Your task to perform on an android device: choose inbox layout in the gmail app Image 0: 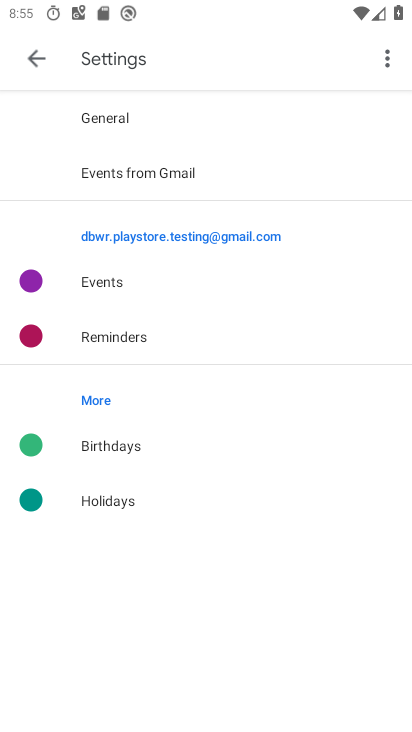
Step 0: press home button
Your task to perform on an android device: choose inbox layout in the gmail app Image 1: 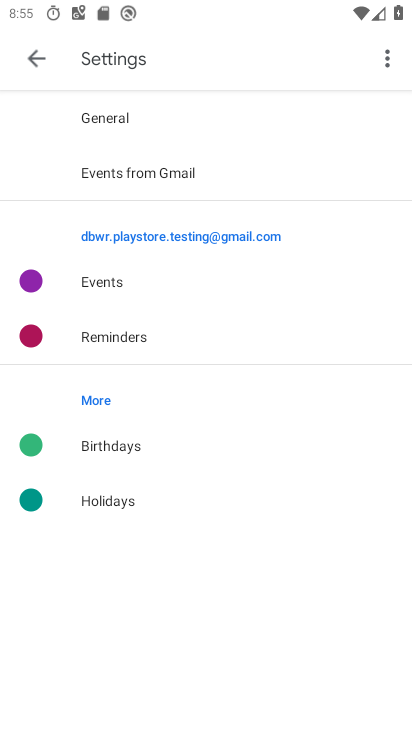
Step 1: press home button
Your task to perform on an android device: choose inbox layout in the gmail app Image 2: 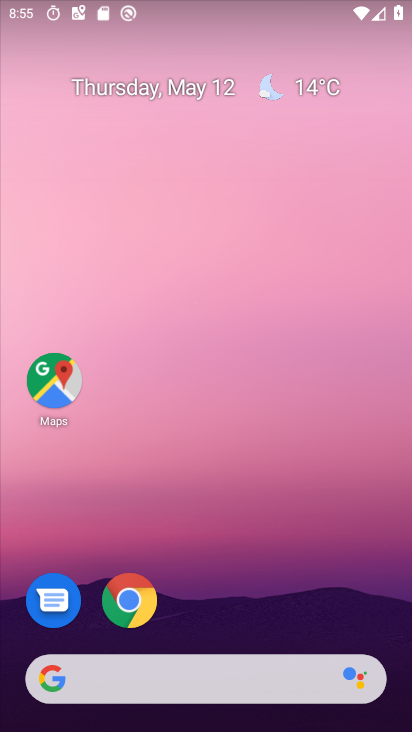
Step 2: press home button
Your task to perform on an android device: choose inbox layout in the gmail app Image 3: 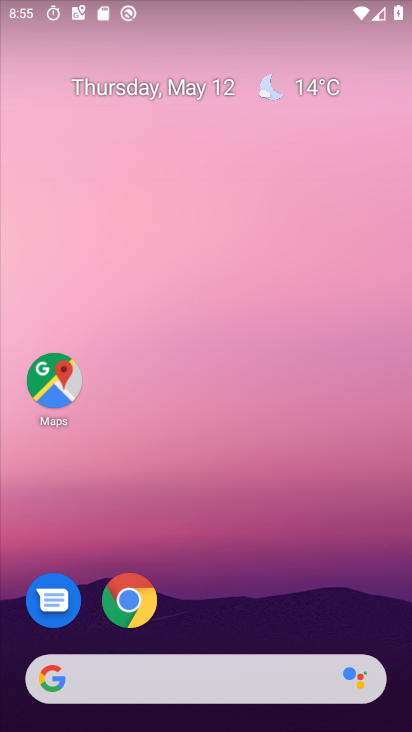
Step 3: press home button
Your task to perform on an android device: choose inbox layout in the gmail app Image 4: 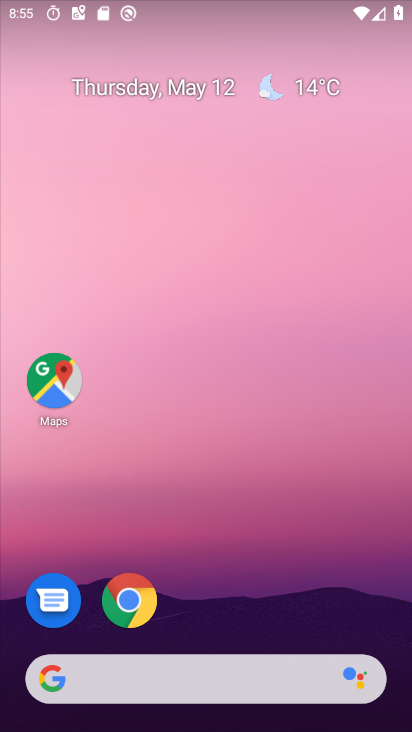
Step 4: drag from (370, 626) to (76, 7)
Your task to perform on an android device: choose inbox layout in the gmail app Image 5: 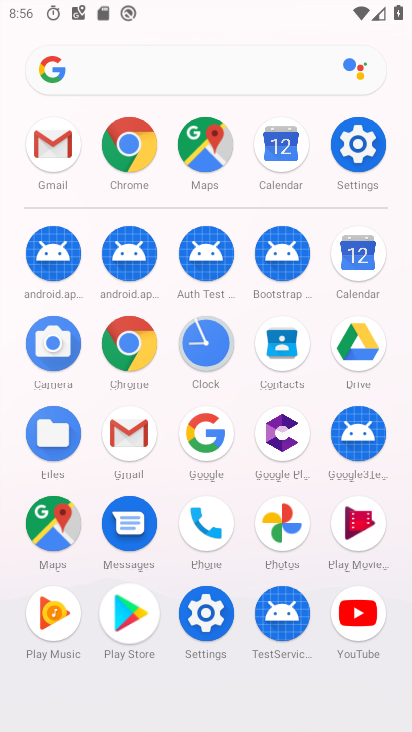
Step 5: click (119, 413)
Your task to perform on an android device: choose inbox layout in the gmail app Image 6: 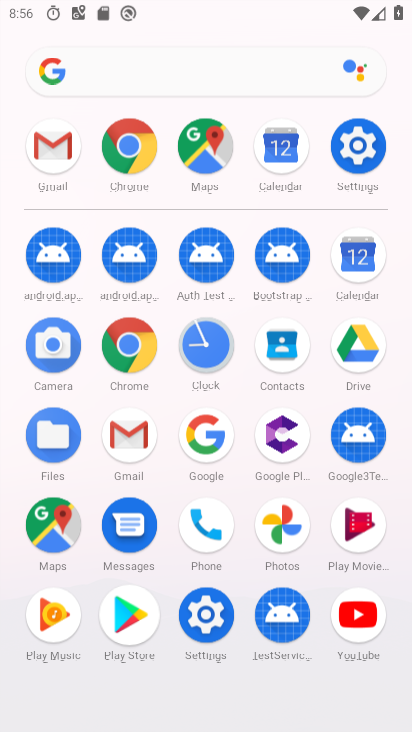
Step 6: click (116, 421)
Your task to perform on an android device: choose inbox layout in the gmail app Image 7: 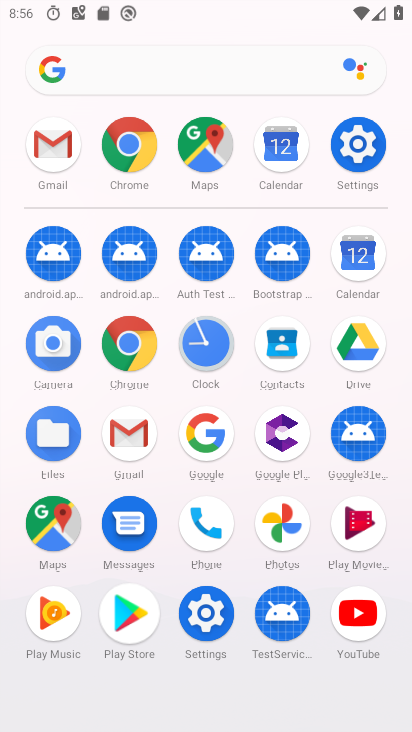
Step 7: click (116, 421)
Your task to perform on an android device: choose inbox layout in the gmail app Image 8: 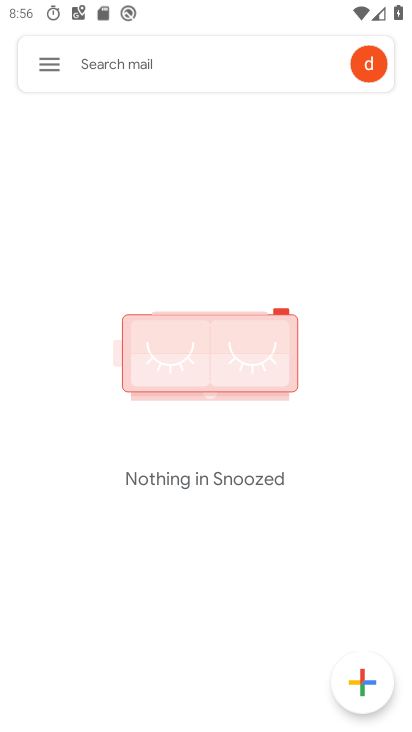
Step 8: click (44, 61)
Your task to perform on an android device: choose inbox layout in the gmail app Image 9: 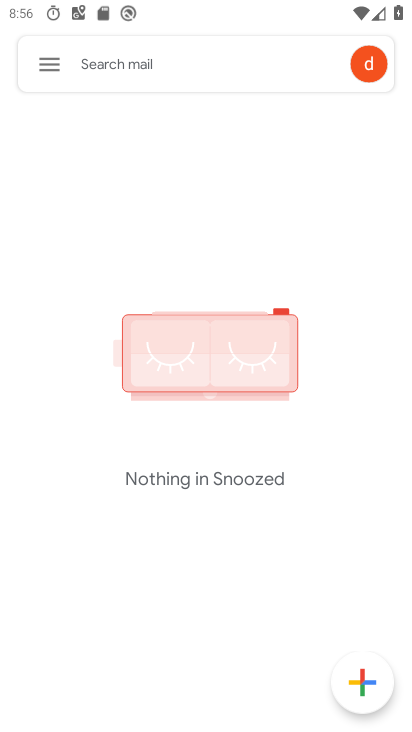
Step 9: click (46, 59)
Your task to perform on an android device: choose inbox layout in the gmail app Image 10: 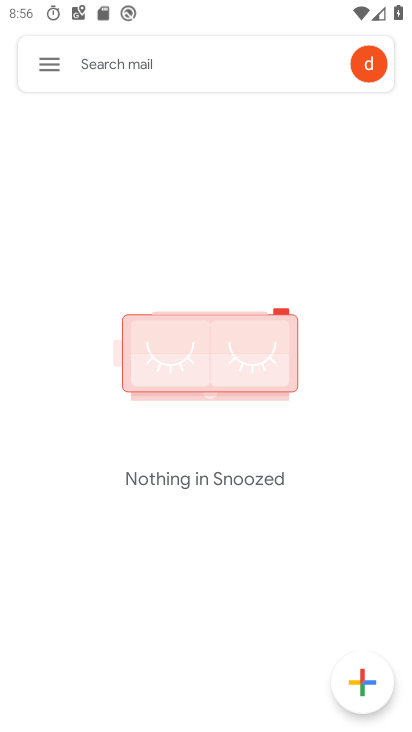
Step 10: click (52, 65)
Your task to perform on an android device: choose inbox layout in the gmail app Image 11: 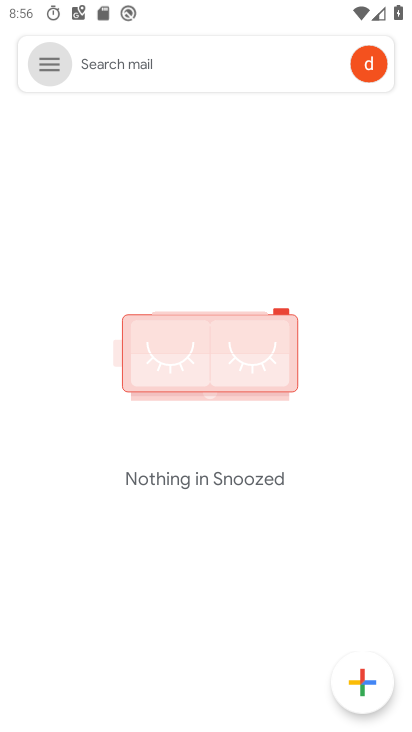
Step 11: click (53, 66)
Your task to perform on an android device: choose inbox layout in the gmail app Image 12: 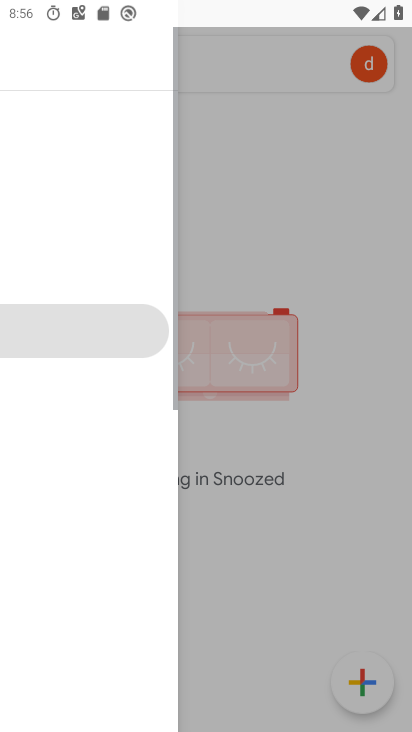
Step 12: click (53, 65)
Your task to perform on an android device: choose inbox layout in the gmail app Image 13: 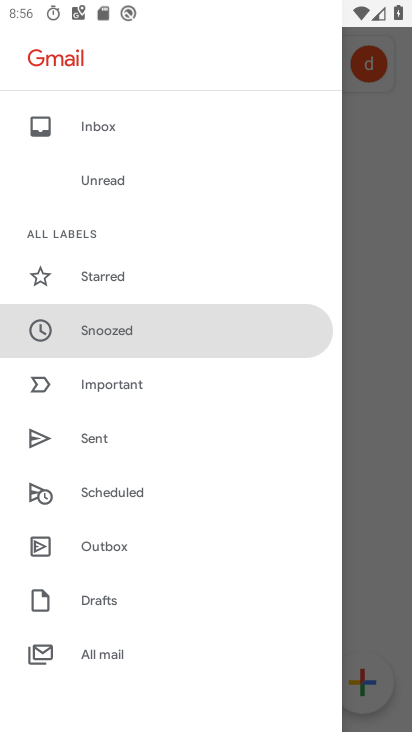
Step 13: drag from (130, 578) to (151, 0)
Your task to perform on an android device: choose inbox layout in the gmail app Image 14: 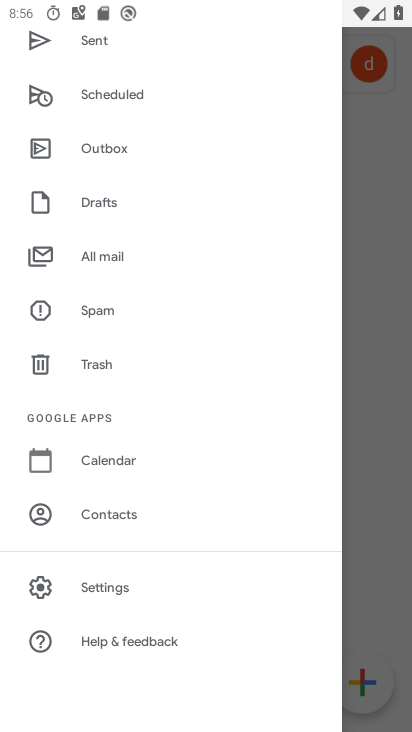
Step 14: click (113, 257)
Your task to perform on an android device: choose inbox layout in the gmail app Image 15: 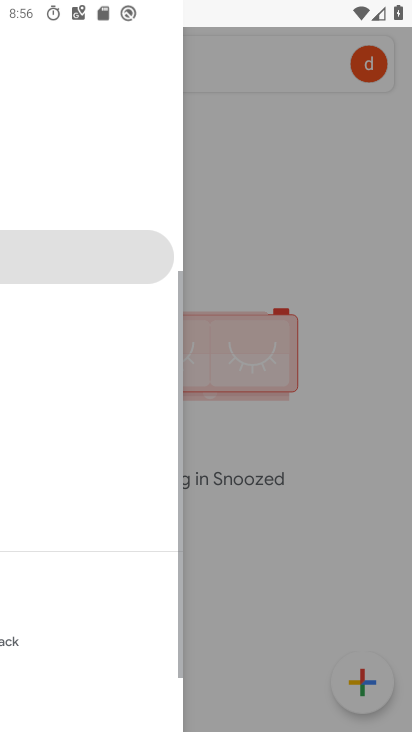
Step 15: click (113, 257)
Your task to perform on an android device: choose inbox layout in the gmail app Image 16: 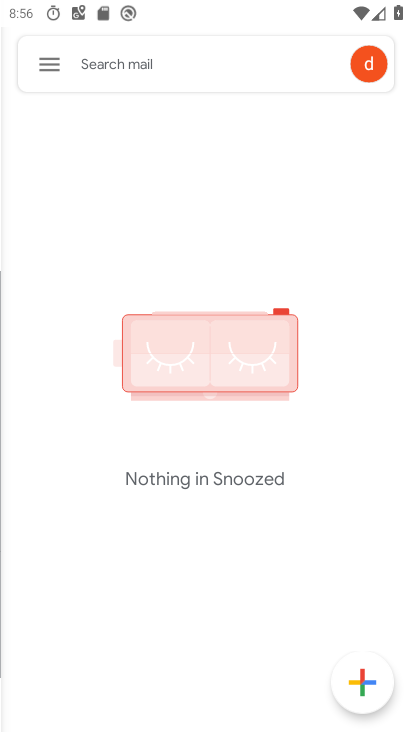
Step 16: click (113, 256)
Your task to perform on an android device: choose inbox layout in the gmail app Image 17: 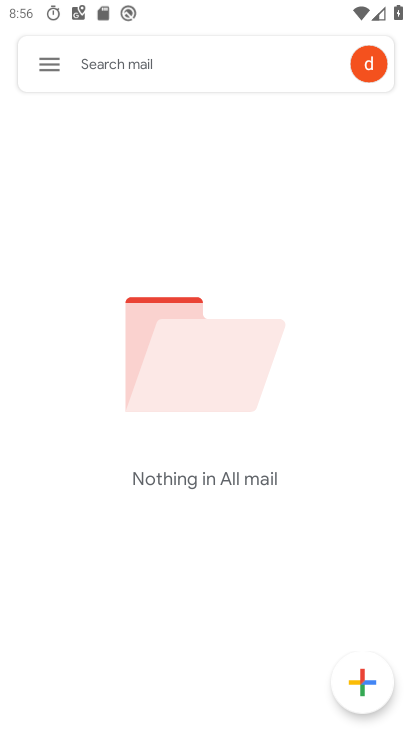
Step 17: task complete